Your task to perform on an android device: Open Google Chrome and click the shortcut for Amazon.com Image 0: 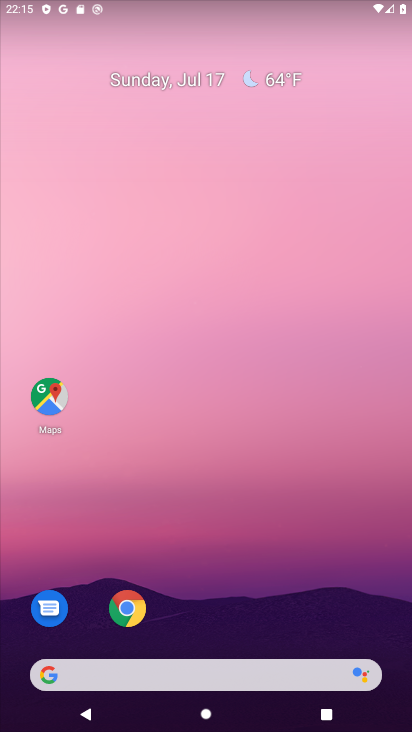
Step 0: click (126, 608)
Your task to perform on an android device: Open Google Chrome and click the shortcut for Amazon.com Image 1: 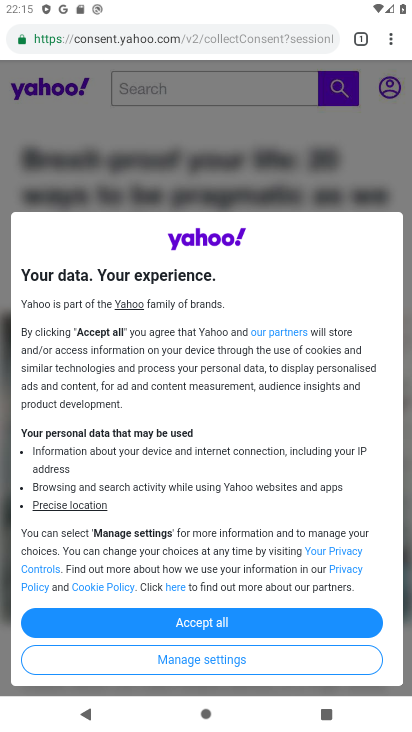
Step 1: click (359, 42)
Your task to perform on an android device: Open Google Chrome and click the shortcut for Amazon.com Image 2: 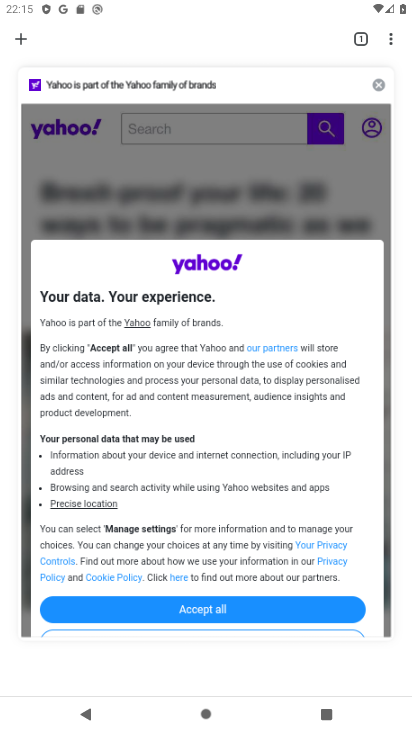
Step 2: click (15, 40)
Your task to perform on an android device: Open Google Chrome and click the shortcut for Amazon.com Image 3: 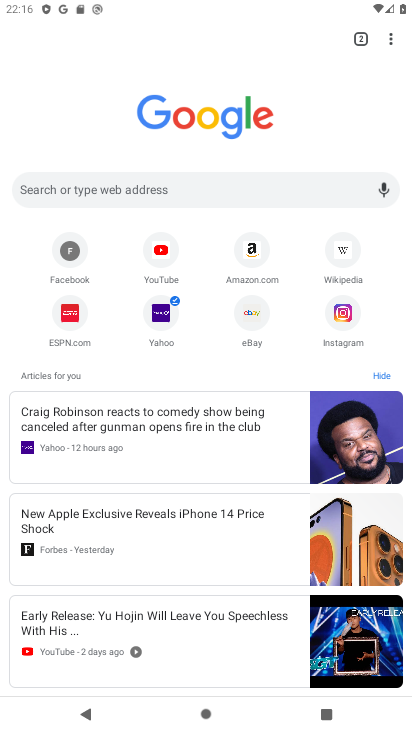
Step 3: click (248, 250)
Your task to perform on an android device: Open Google Chrome and click the shortcut for Amazon.com Image 4: 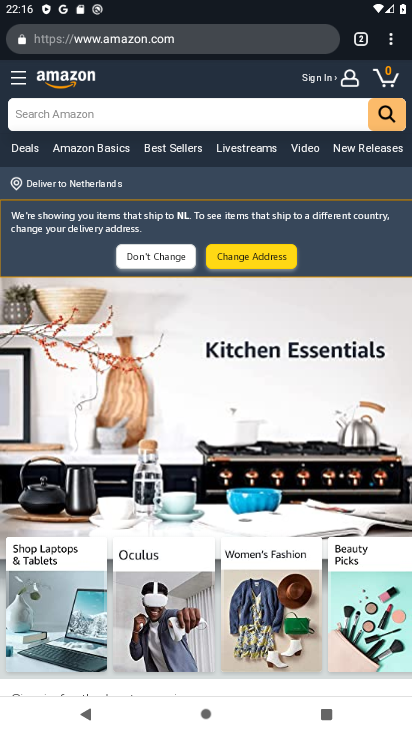
Step 4: task complete